Your task to perform on an android device: add a contact Image 0: 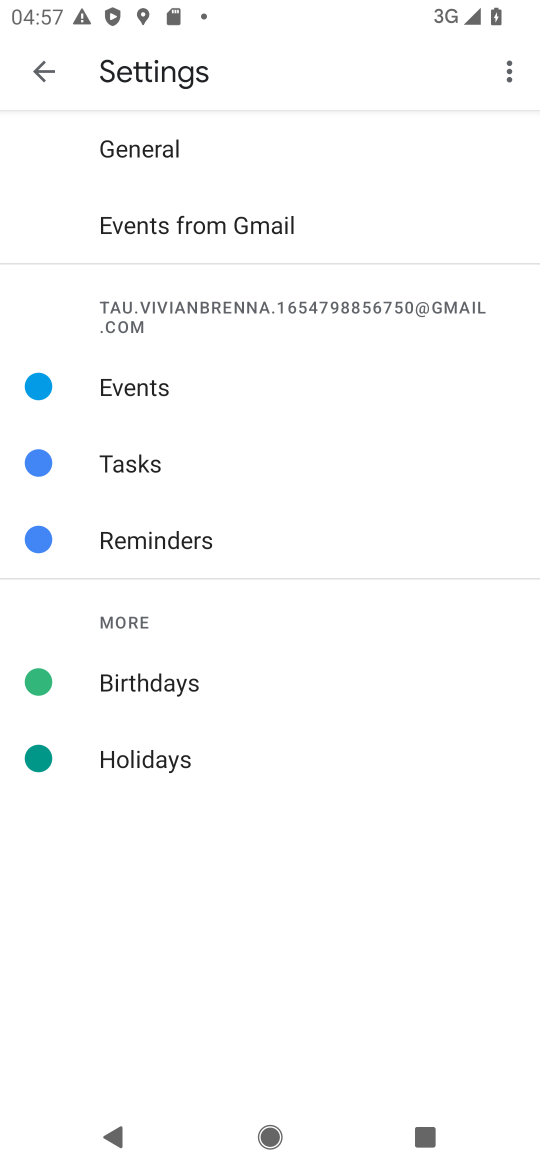
Step 0: press home button
Your task to perform on an android device: add a contact Image 1: 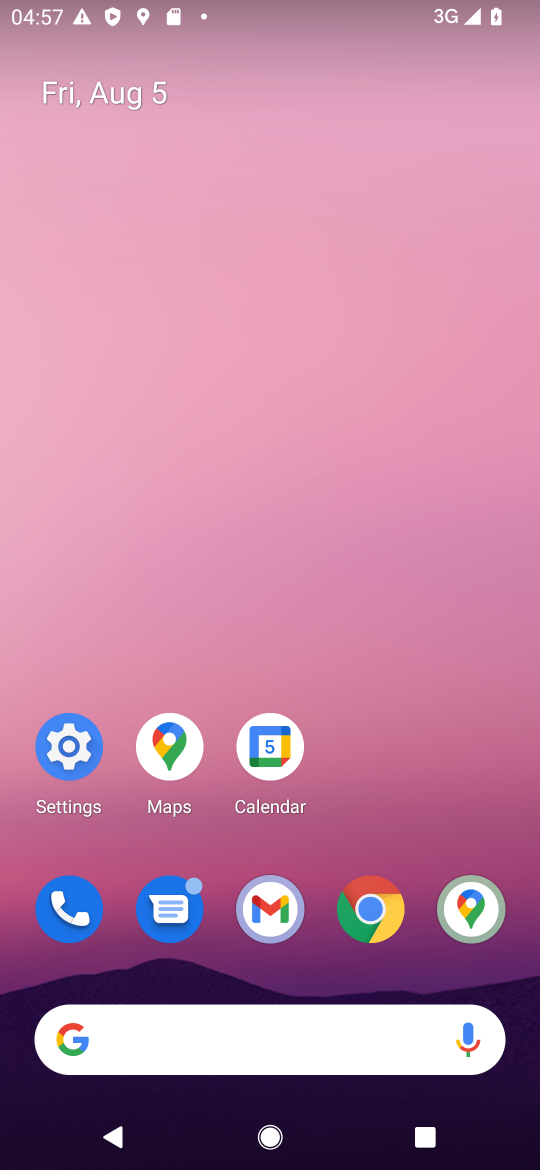
Step 1: drag from (403, 774) to (349, 60)
Your task to perform on an android device: add a contact Image 2: 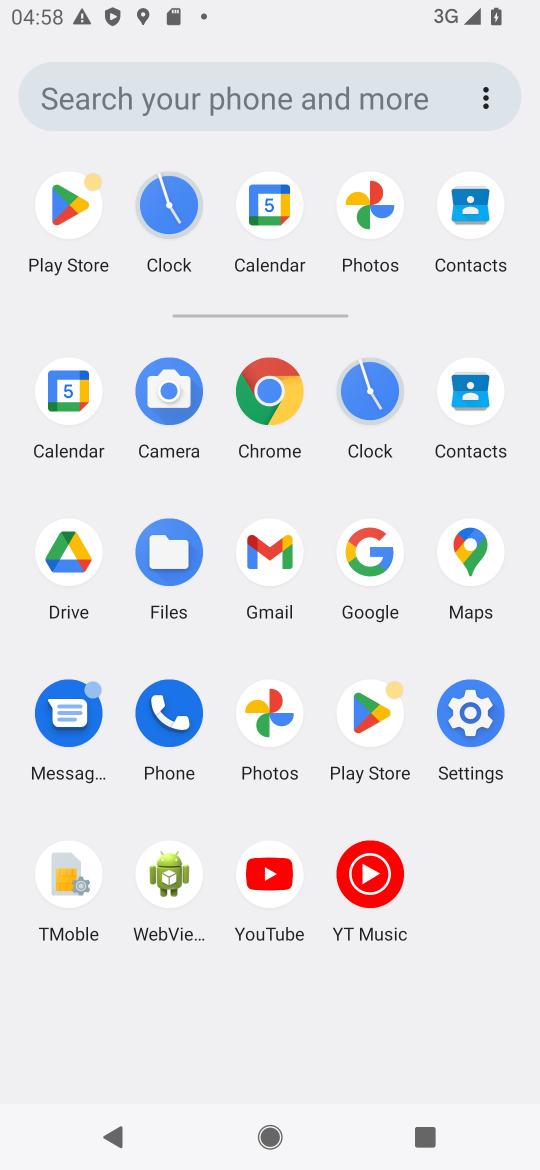
Step 2: click (456, 401)
Your task to perform on an android device: add a contact Image 3: 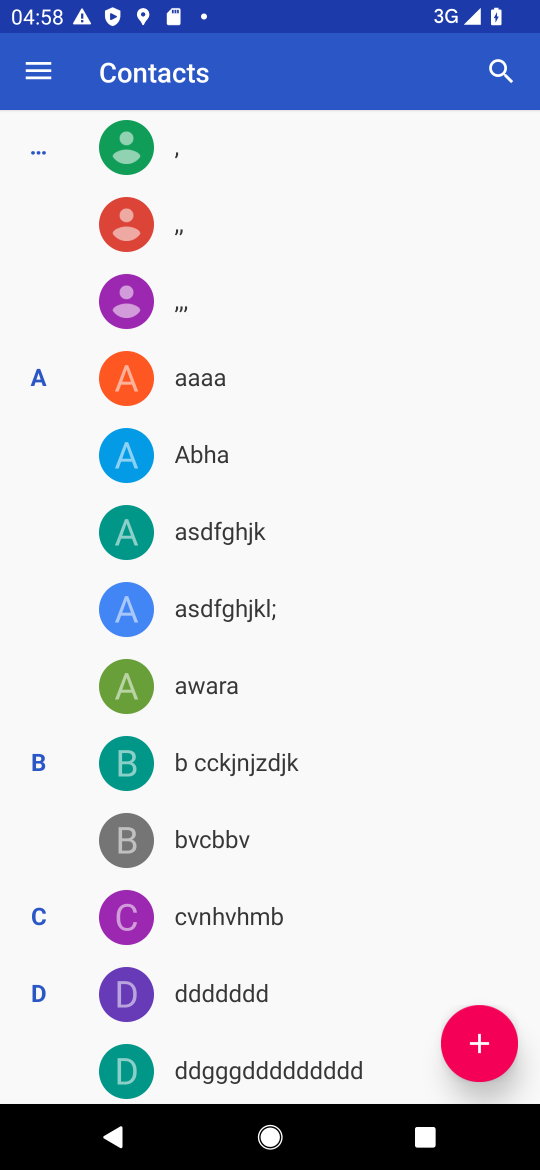
Step 3: click (479, 1043)
Your task to perform on an android device: add a contact Image 4: 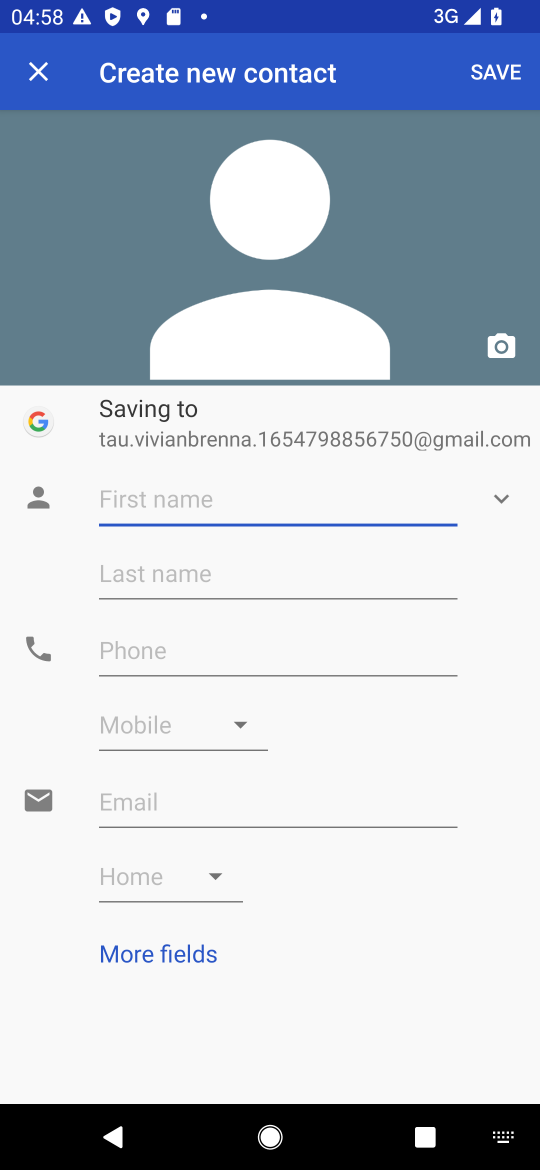
Step 4: type "hhh"
Your task to perform on an android device: add a contact Image 5: 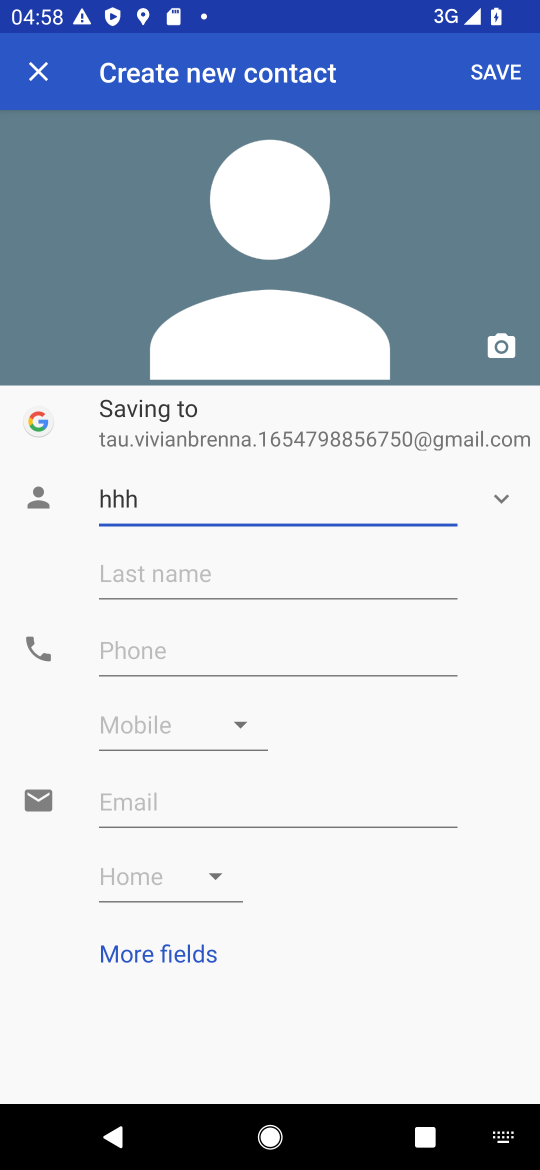
Step 5: click (160, 649)
Your task to perform on an android device: add a contact Image 6: 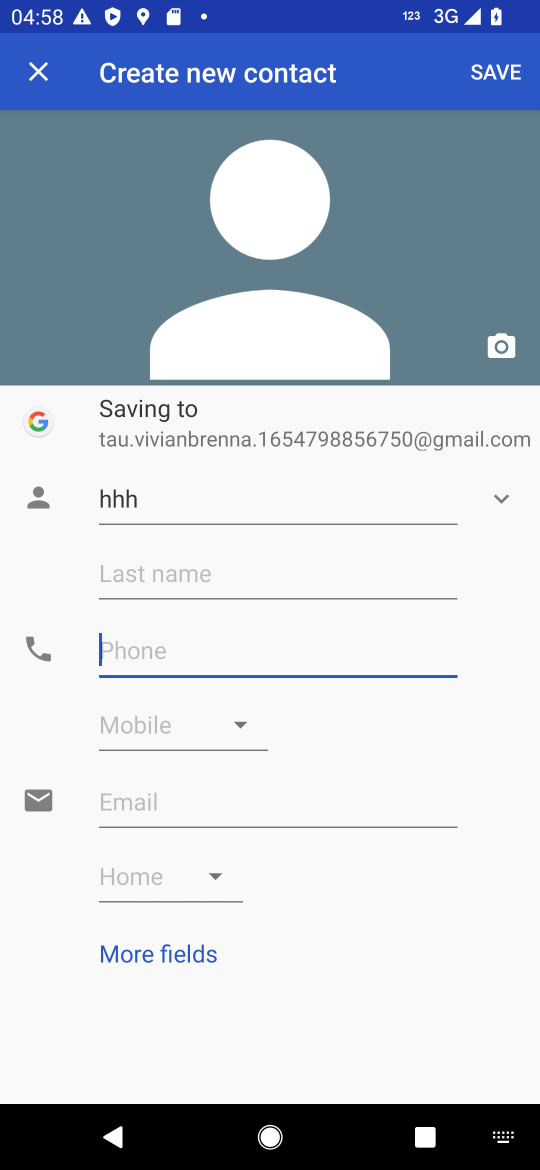
Step 6: type "9878"
Your task to perform on an android device: add a contact Image 7: 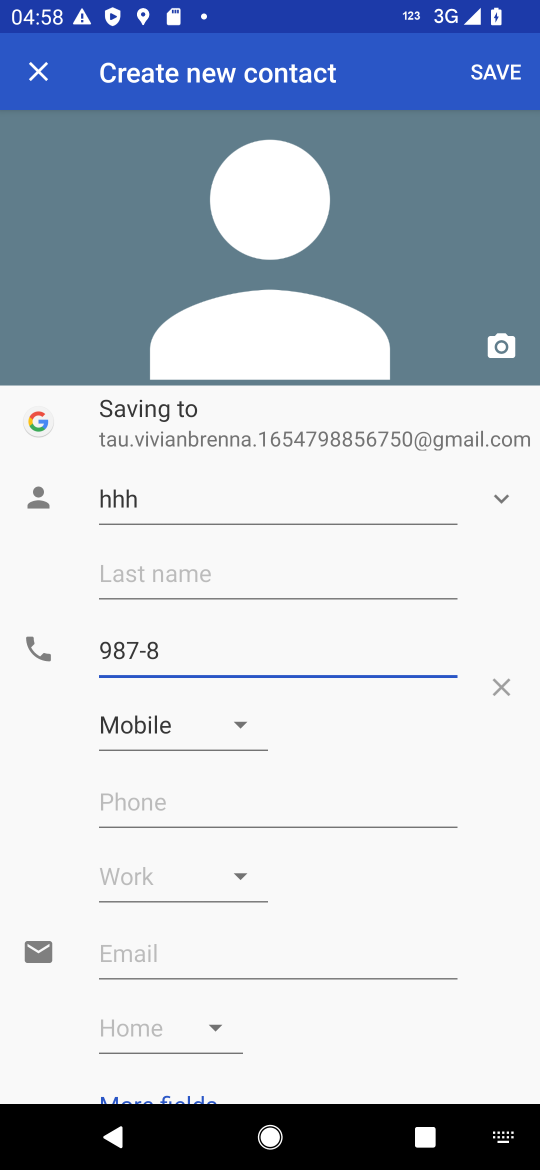
Step 7: click (493, 70)
Your task to perform on an android device: add a contact Image 8: 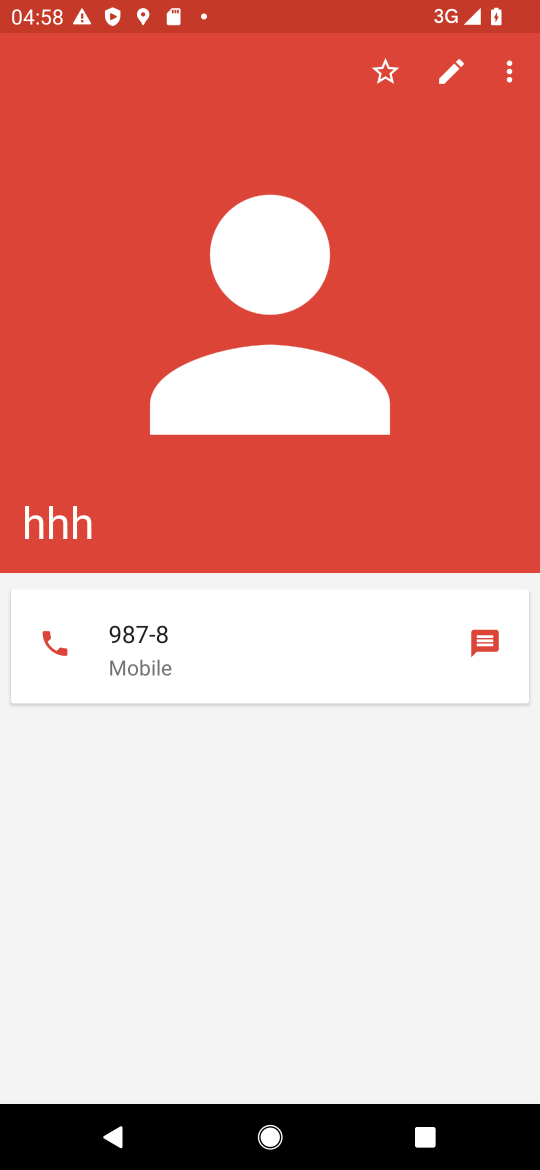
Step 8: task complete